Your task to perform on an android device: turn on wifi Image 0: 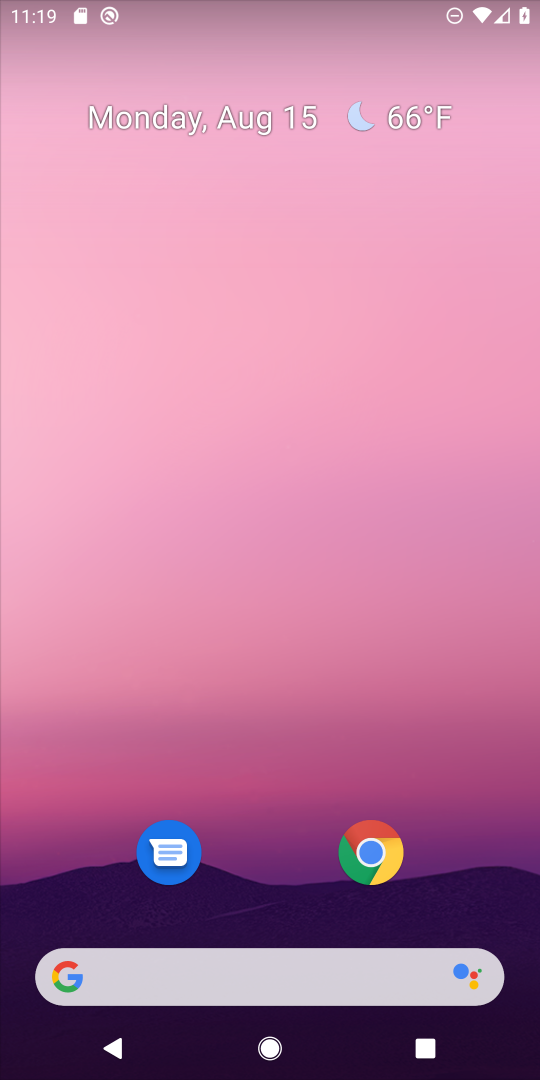
Step 0: drag from (471, 14) to (204, 916)
Your task to perform on an android device: turn on wifi Image 1: 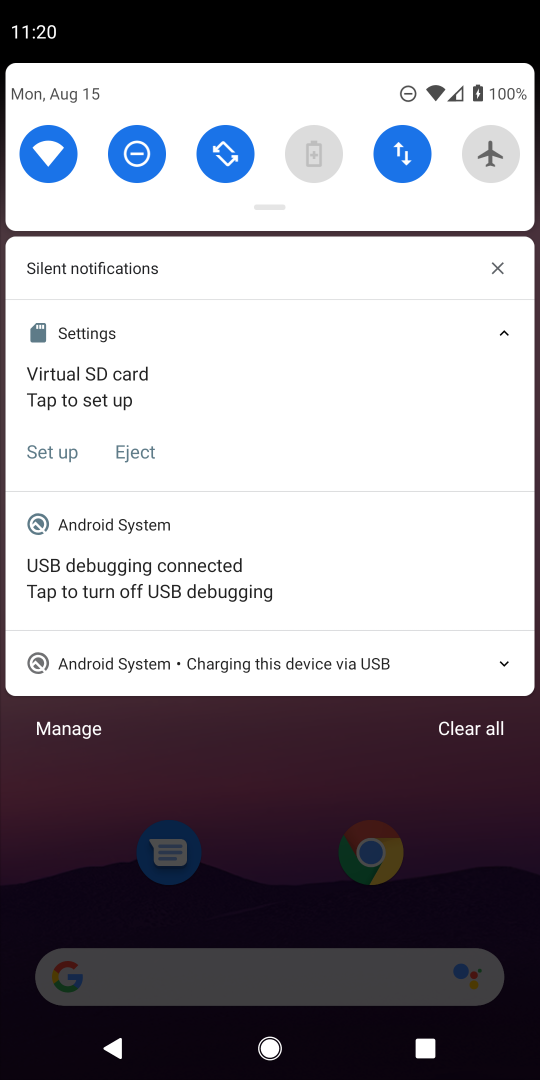
Step 1: task complete